Your task to perform on an android device: choose inbox layout in the gmail app Image 0: 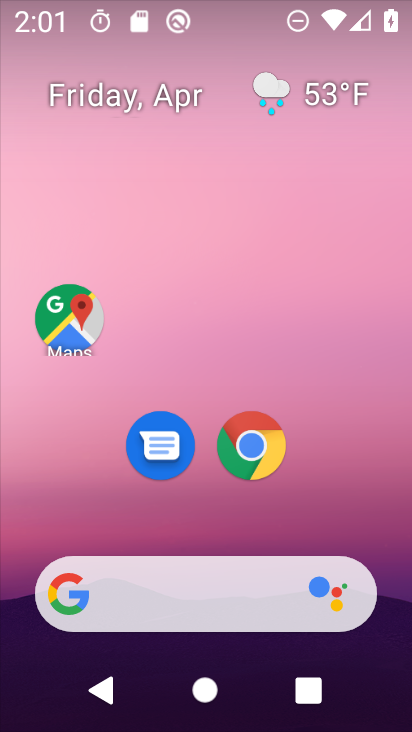
Step 0: drag from (357, 507) to (334, 140)
Your task to perform on an android device: choose inbox layout in the gmail app Image 1: 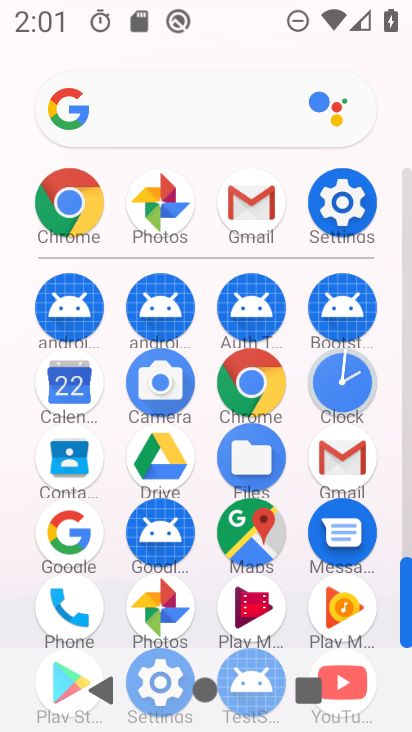
Step 1: click (346, 464)
Your task to perform on an android device: choose inbox layout in the gmail app Image 2: 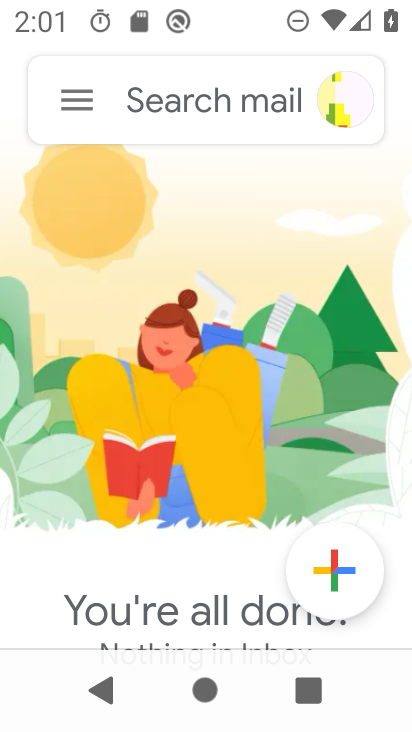
Step 2: click (83, 94)
Your task to perform on an android device: choose inbox layout in the gmail app Image 3: 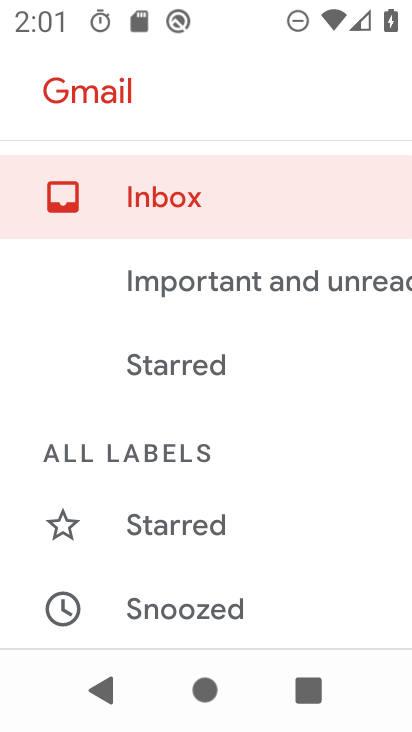
Step 3: drag from (304, 502) to (305, 313)
Your task to perform on an android device: choose inbox layout in the gmail app Image 4: 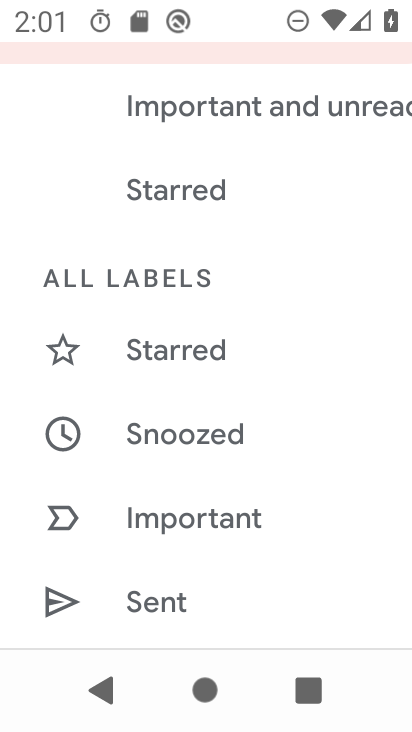
Step 4: drag from (312, 562) to (314, 404)
Your task to perform on an android device: choose inbox layout in the gmail app Image 5: 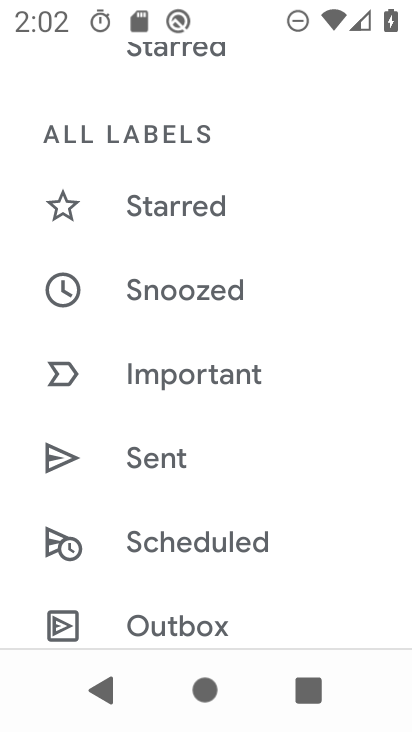
Step 5: drag from (322, 568) to (318, 337)
Your task to perform on an android device: choose inbox layout in the gmail app Image 6: 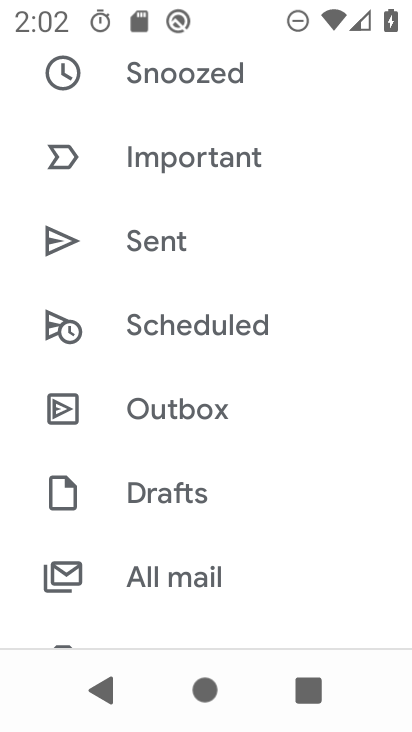
Step 6: drag from (311, 530) to (317, 326)
Your task to perform on an android device: choose inbox layout in the gmail app Image 7: 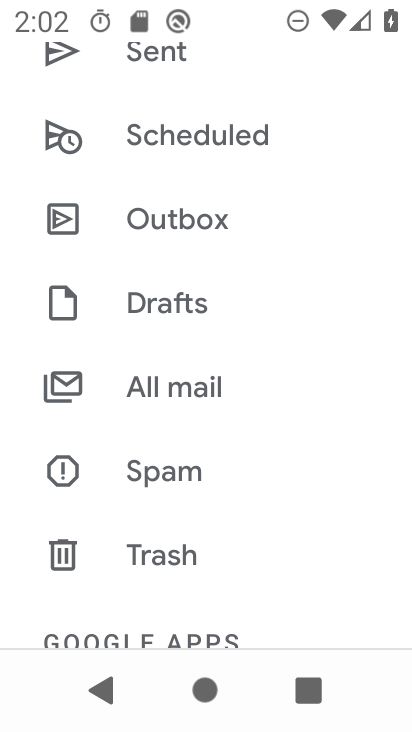
Step 7: drag from (300, 555) to (306, 323)
Your task to perform on an android device: choose inbox layout in the gmail app Image 8: 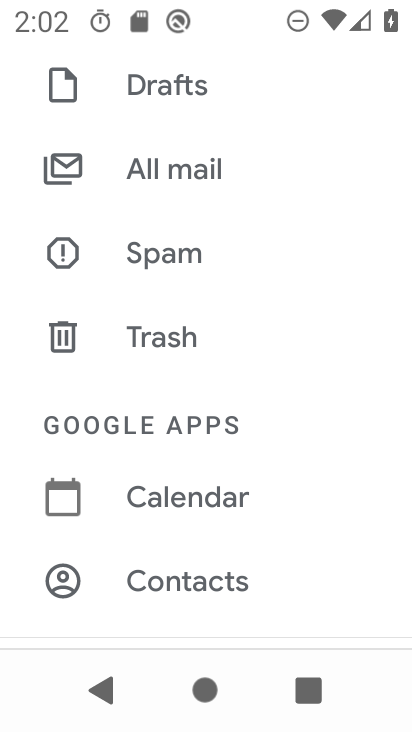
Step 8: drag from (295, 574) to (312, 293)
Your task to perform on an android device: choose inbox layout in the gmail app Image 9: 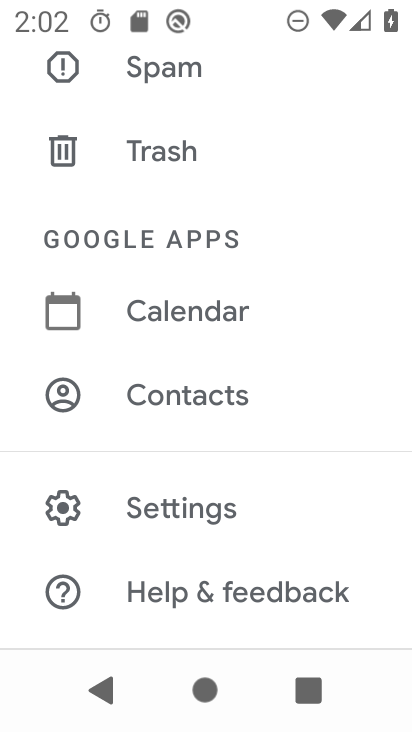
Step 9: click (213, 509)
Your task to perform on an android device: choose inbox layout in the gmail app Image 10: 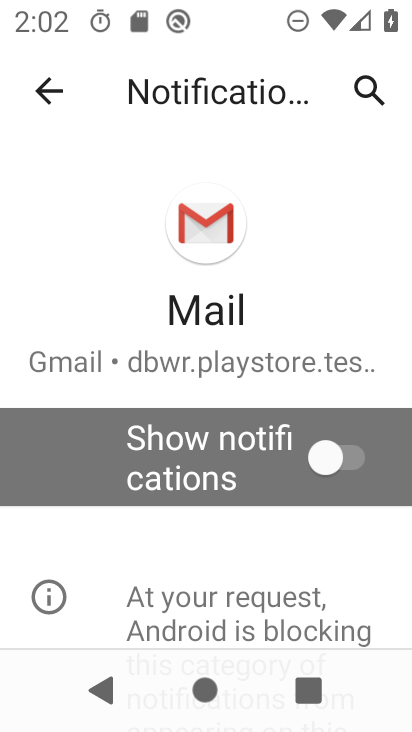
Step 10: click (57, 100)
Your task to perform on an android device: choose inbox layout in the gmail app Image 11: 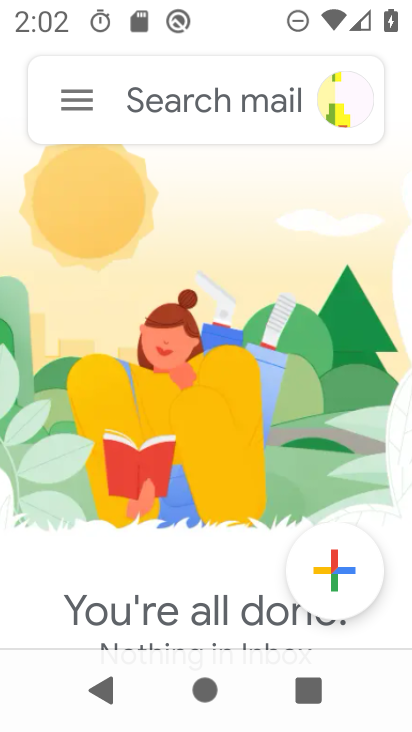
Step 11: click (80, 92)
Your task to perform on an android device: choose inbox layout in the gmail app Image 12: 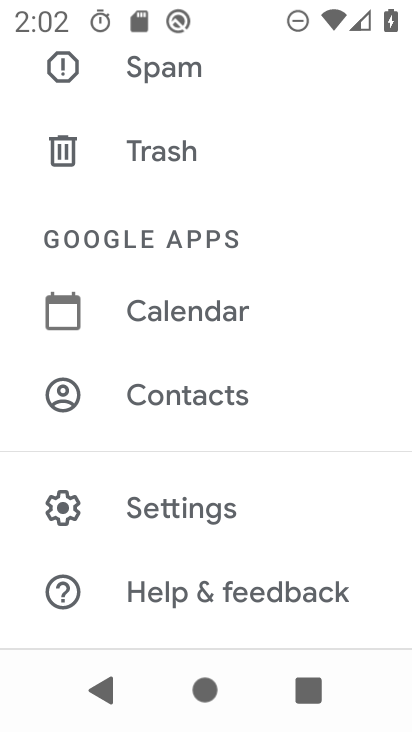
Step 12: click (209, 506)
Your task to perform on an android device: choose inbox layout in the gmail app Image 13: 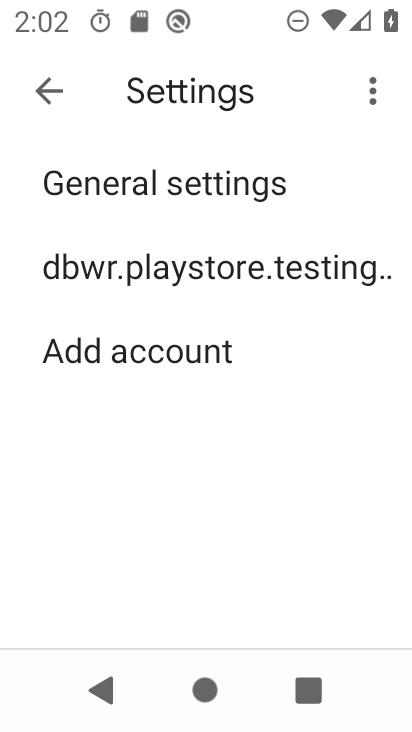
Step 13: click (232, 259)
Your task to perform on an android device: choose inbox layout in the gmail app Image 14: 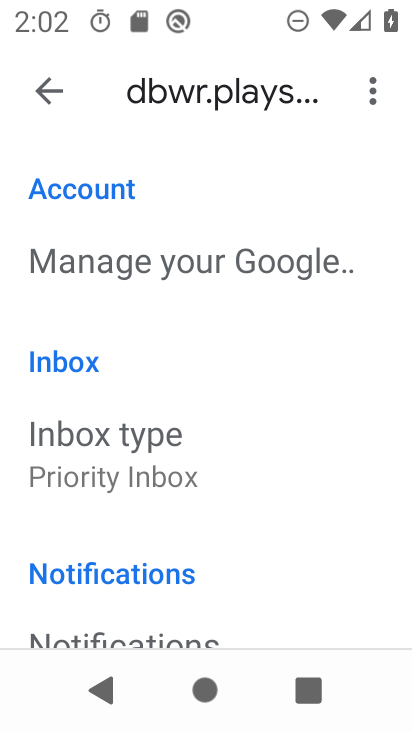
Step 14: click (149, 464)
Your task to perform on an android device: choose inbox layout in the gmail app Image 15: 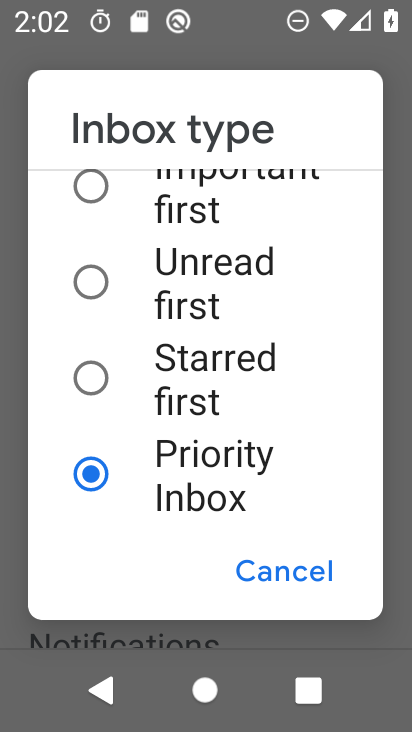
Step 15: click (185, 264)
Your task to perform on an android device: choose inbox layout in the gmail app Image 16: 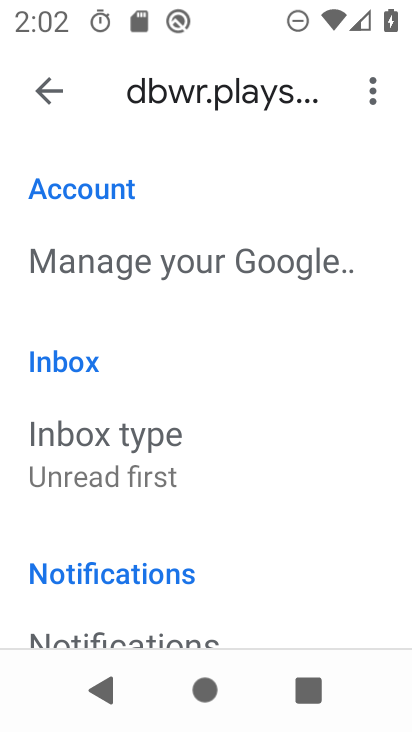
Step 16: task complete